Your task to perform on an android device: check android version Image 0: 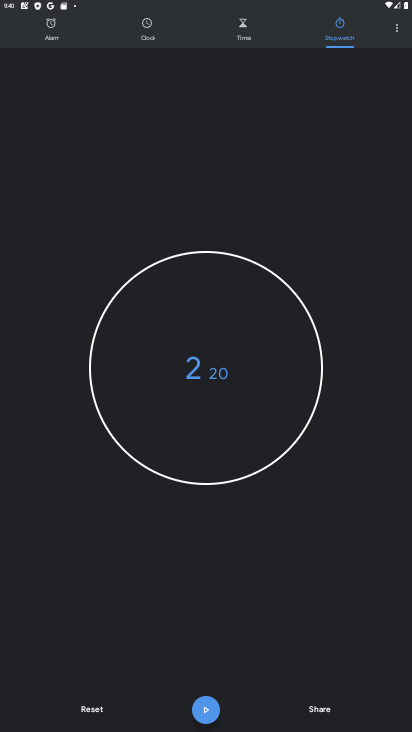
Step 0: press home button
Your task to perform on an android device: check android version Image 1: 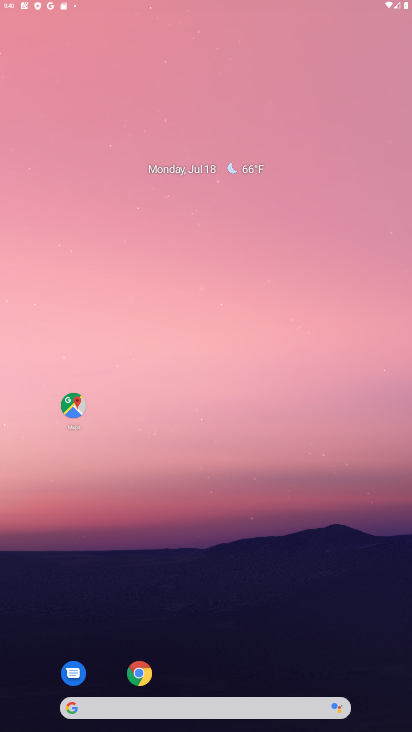
Step 1: drag from (202, 666) to (216, 122)
Your task to perform on an android device: check android version Image 2: 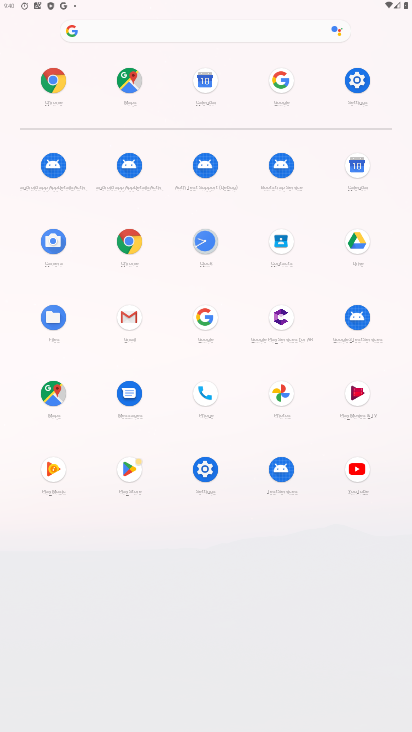
Step 2: click (356, 80)
Your task to perform on an android device: check android version Image 3: 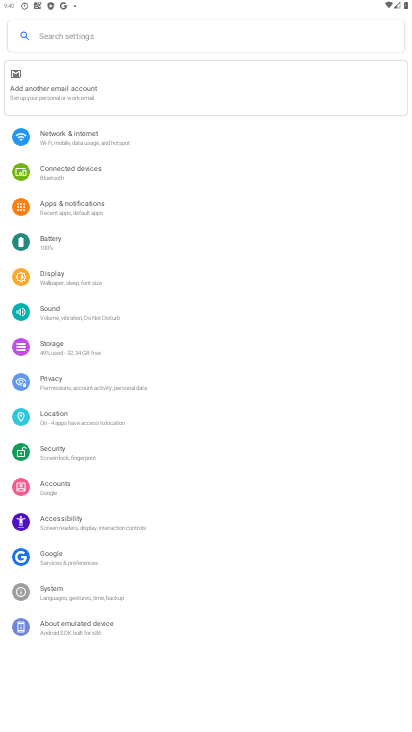
Step 3: click (98, 628)
Your task to perform on an android device: check android version Image 4: 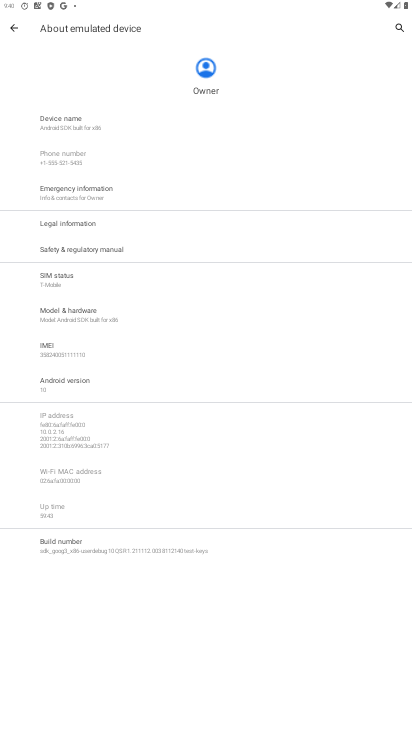
Step 4: click (93, 382)
Your task to perform on an android device: check android version Image 5: 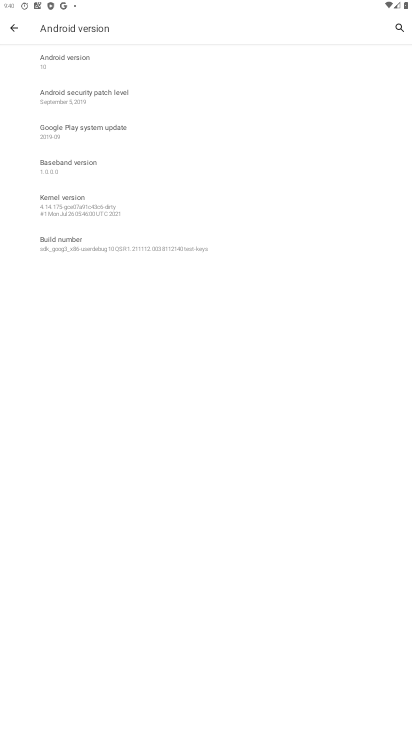
Step 5: task complete